Your task to perform on an android device: Check the weather Image 0: 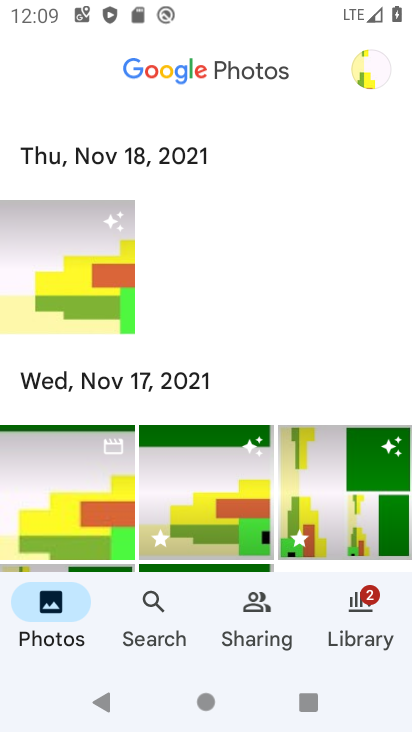
Step 0: press home button
Your task to perform on an android device: Check the weather Image 1: 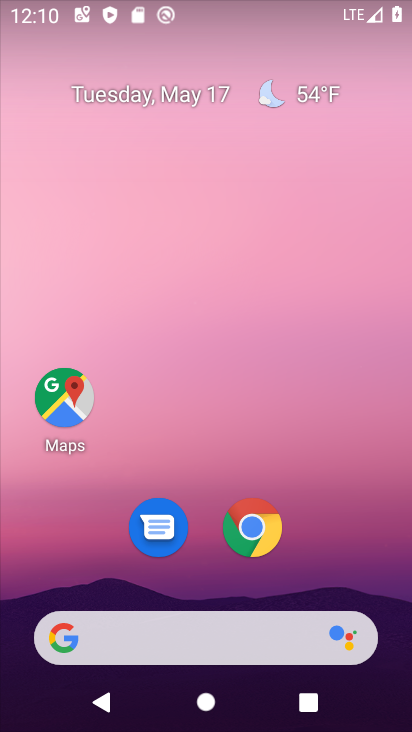
Step 1: drag from (220, 683) to (174, 315)
Your task to perform on an android device: Check the weather Image 2: 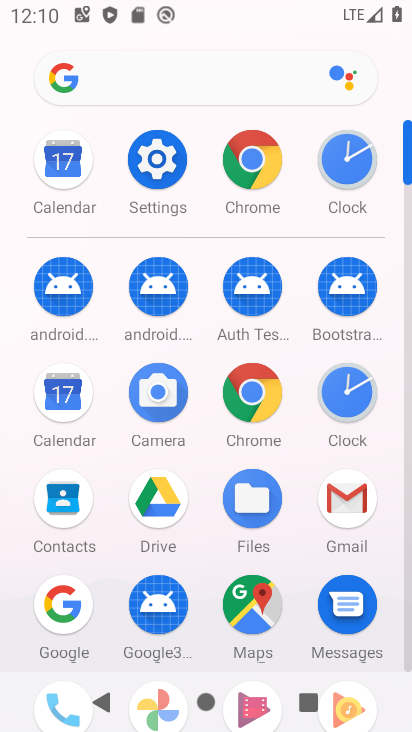
Step 2: click (169, 82)
Your task to perform on an android device: Check the weather Image 3: 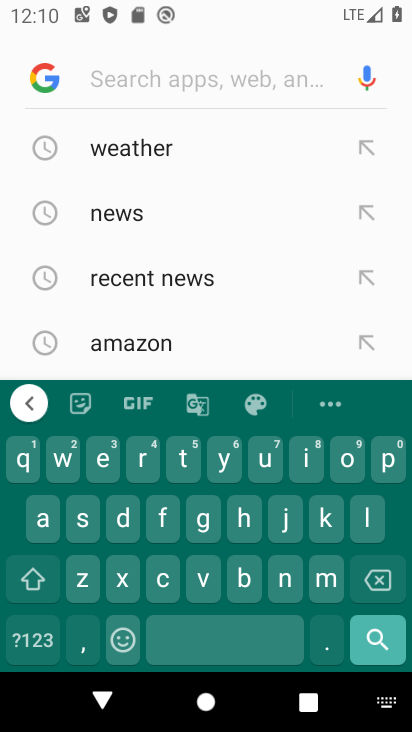
Step 3: click (142, 158)
Your task to perform on an android device: Check the weather Image 4: 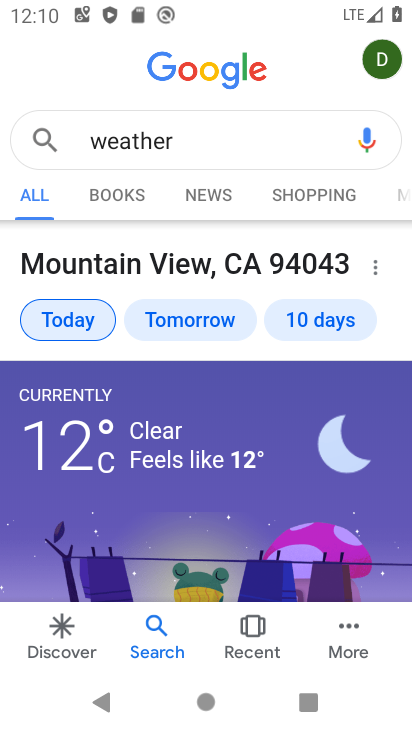
Step 4: task complete